Your task to perform on an android device: Open Android settings Image 0: 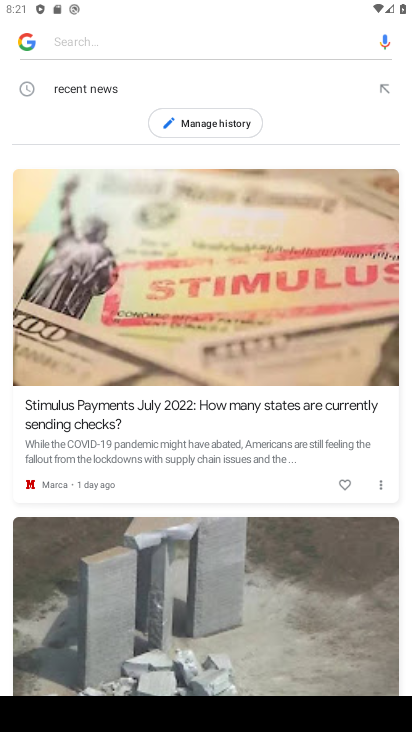
Step 0: press home button
Your task to perform on an android device: Open Android settings Image 1: 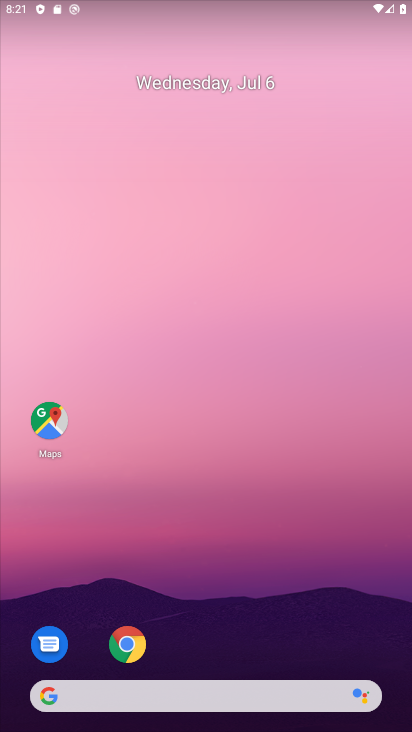
Step 1: drag from (193, 636) to (201, 194)
Your task to perform on an android device: Open Android settings Image 2: 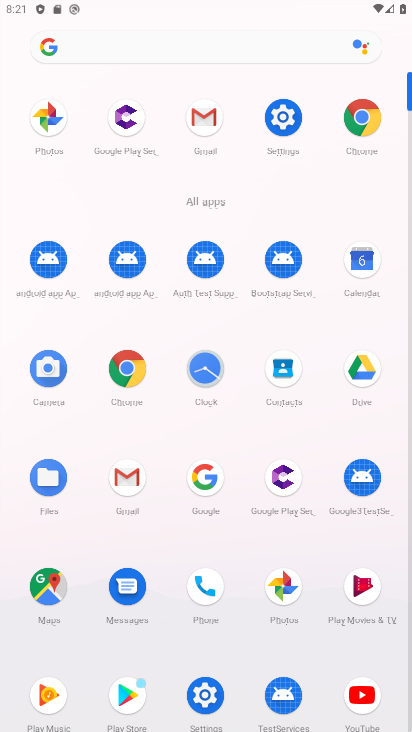
Step 2: click (279, 123)
Your task to perform on an android device: Open Android settings Image 3: 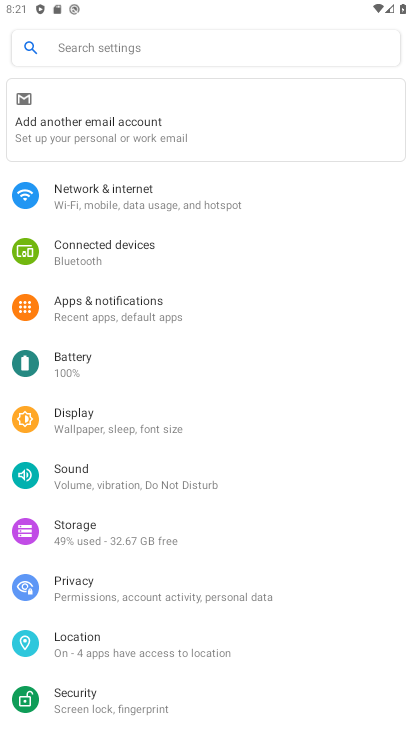
Step 3: task complete